Your task to perform on an android device: Open battery settings Image 0: 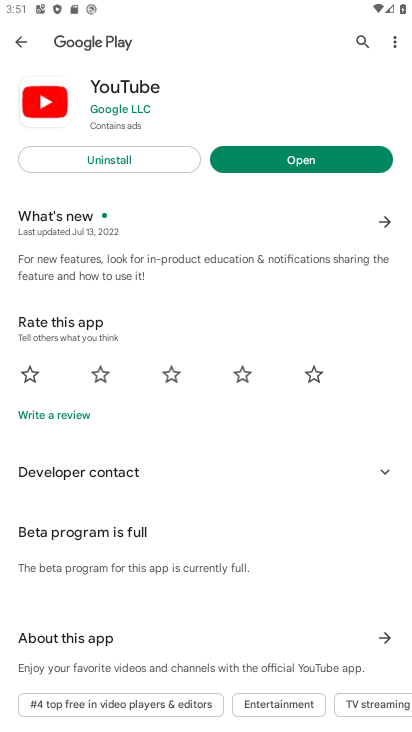
Step 0: press home button
Your task to perform on an android device: Open battery settings Image 1: 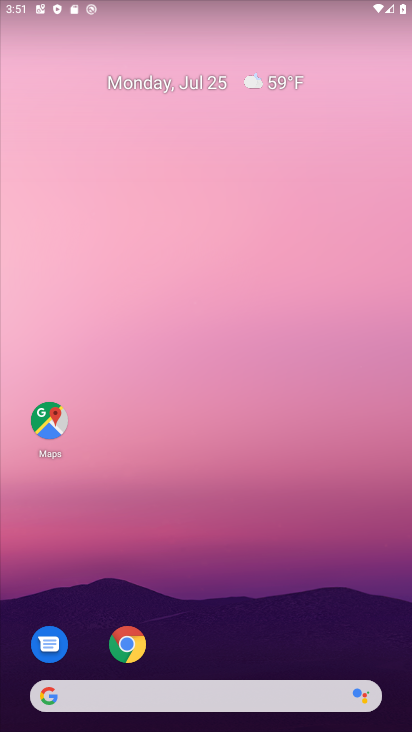
Step 1: drag from (221, 638) to (201, 175)
Your task to perform on an android device: Open battery settings Image 2: 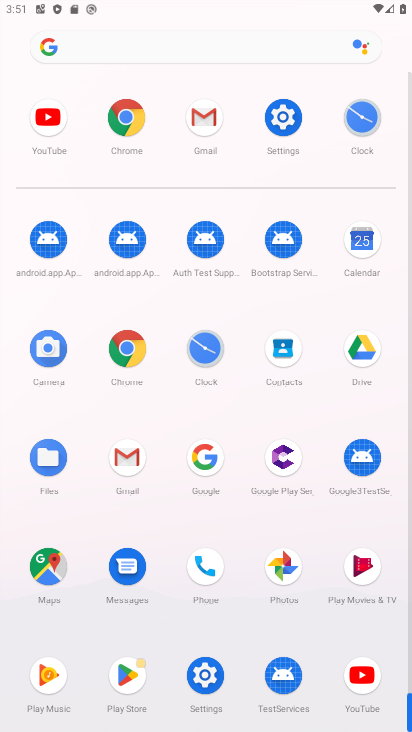
Step 2: click (270, 111)
Your task to perform on an android device: Open battery settings Image 3: 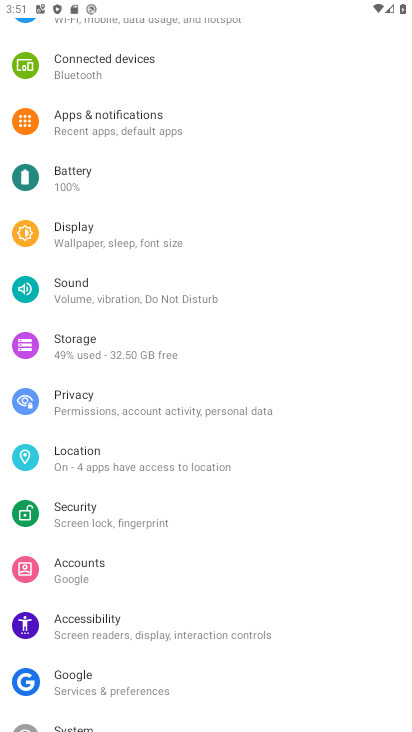
Step 3: click (94, 170)
Your task to perform on an android device: Open battery settings Image 4: 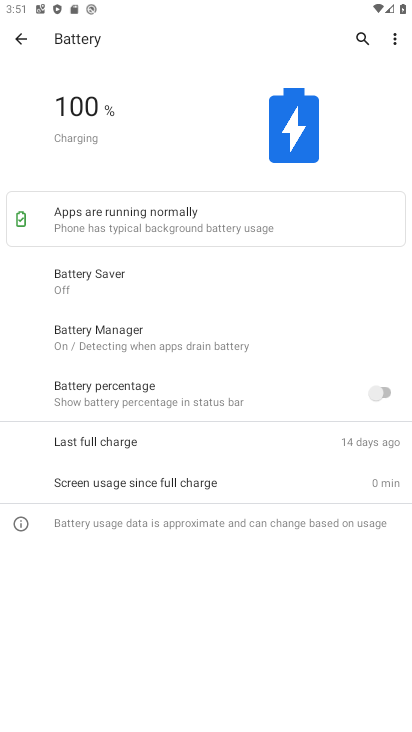
Step 4: task complete